Your task to perform on an android device: Add "panasonic triple a" to the cart on newegg Image 0: 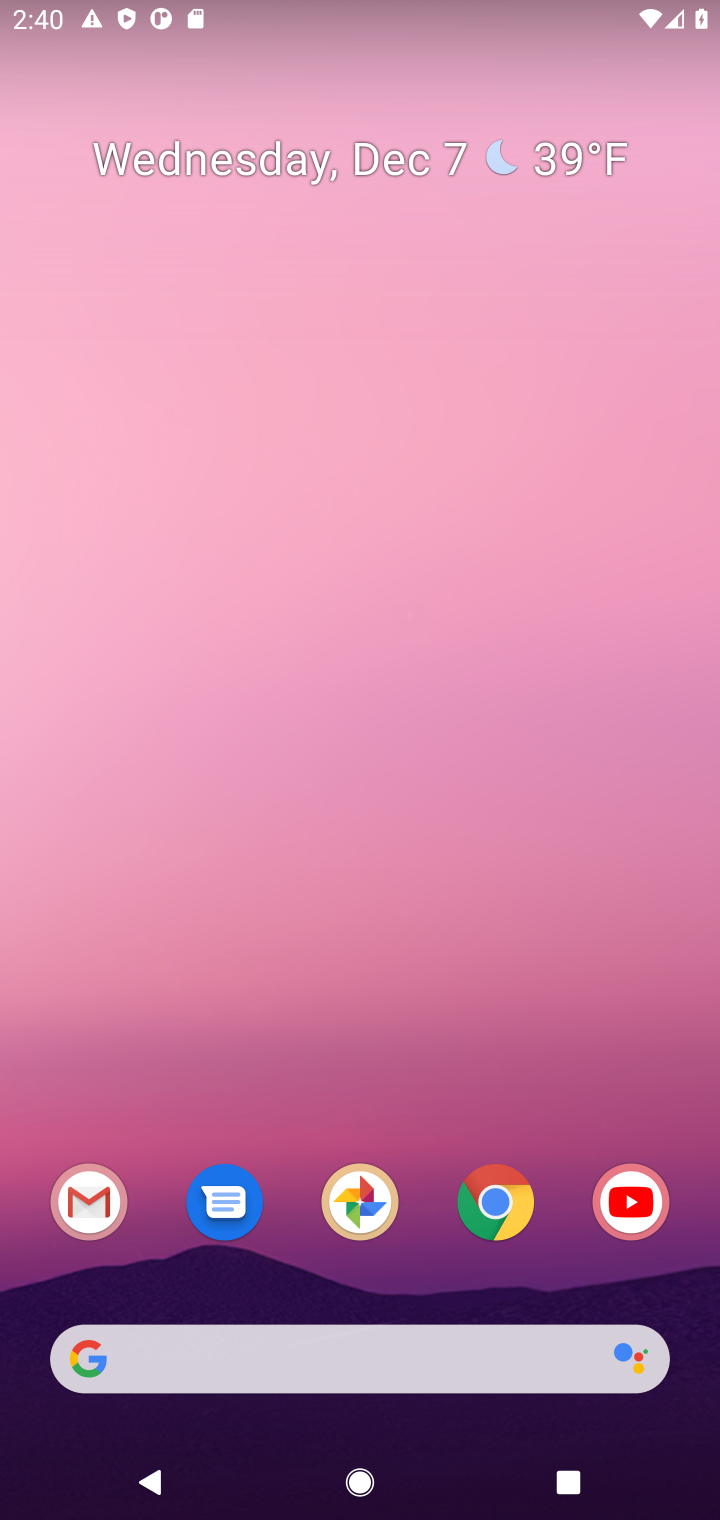
Step 0: click (488, 1205)
Your task to perform on an android device: Add "panasonic triple a" to the cart on newegg Image 1: 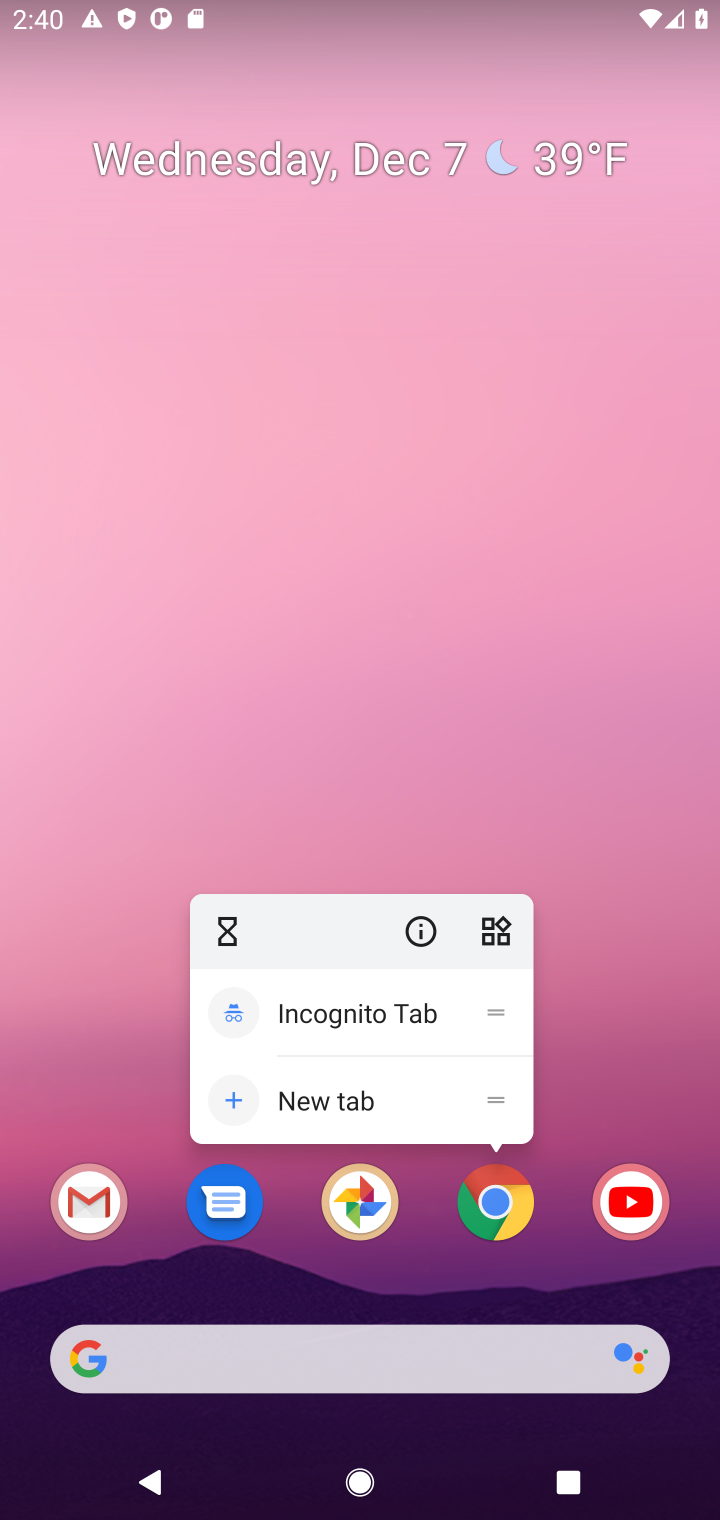
Step 1: click (472, 1202)
Your task to perform on an android device: Add "panasonic triple a" to the cart on newegg Image 2: 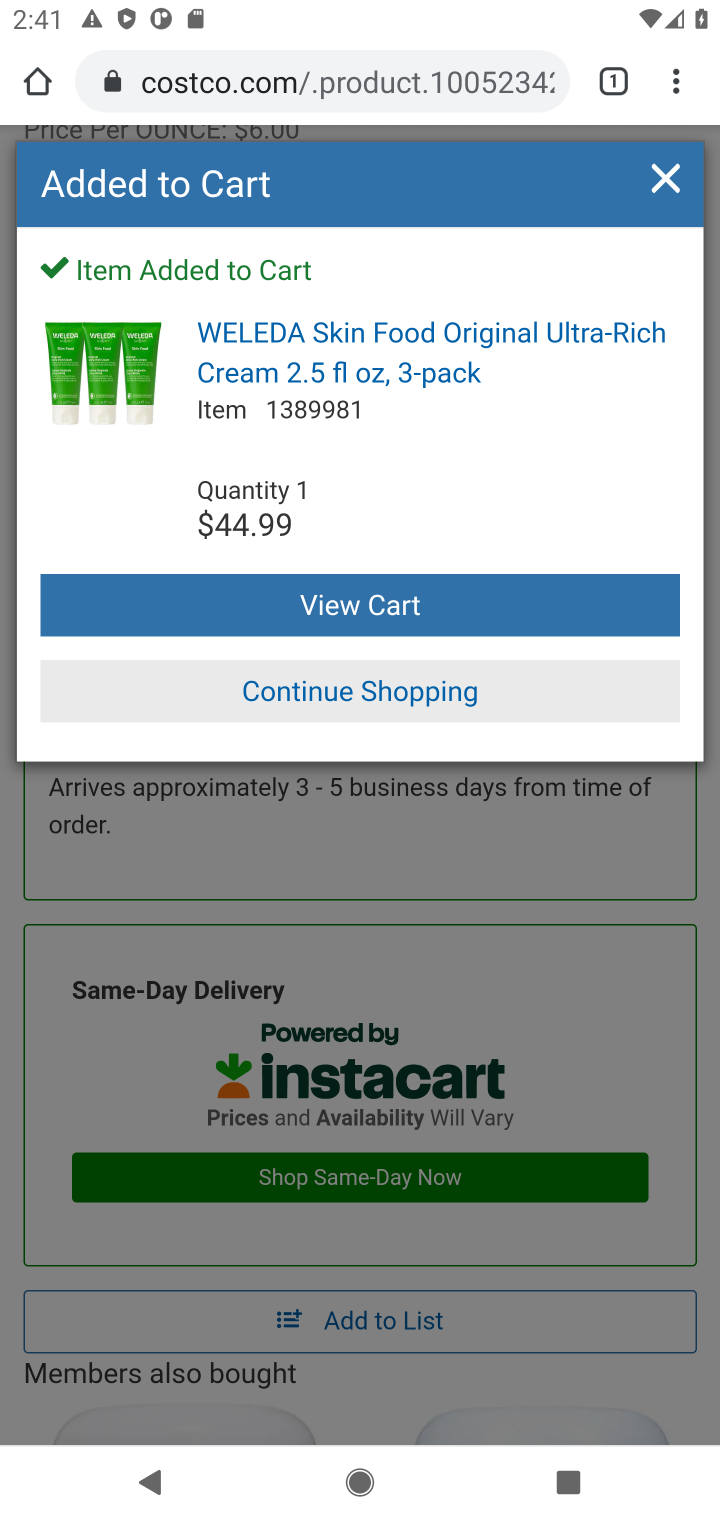
Step 2: click (305, 82)
Your task to perform on an android device: Add "panasonic triple a" to the cart on newegg Image 3: 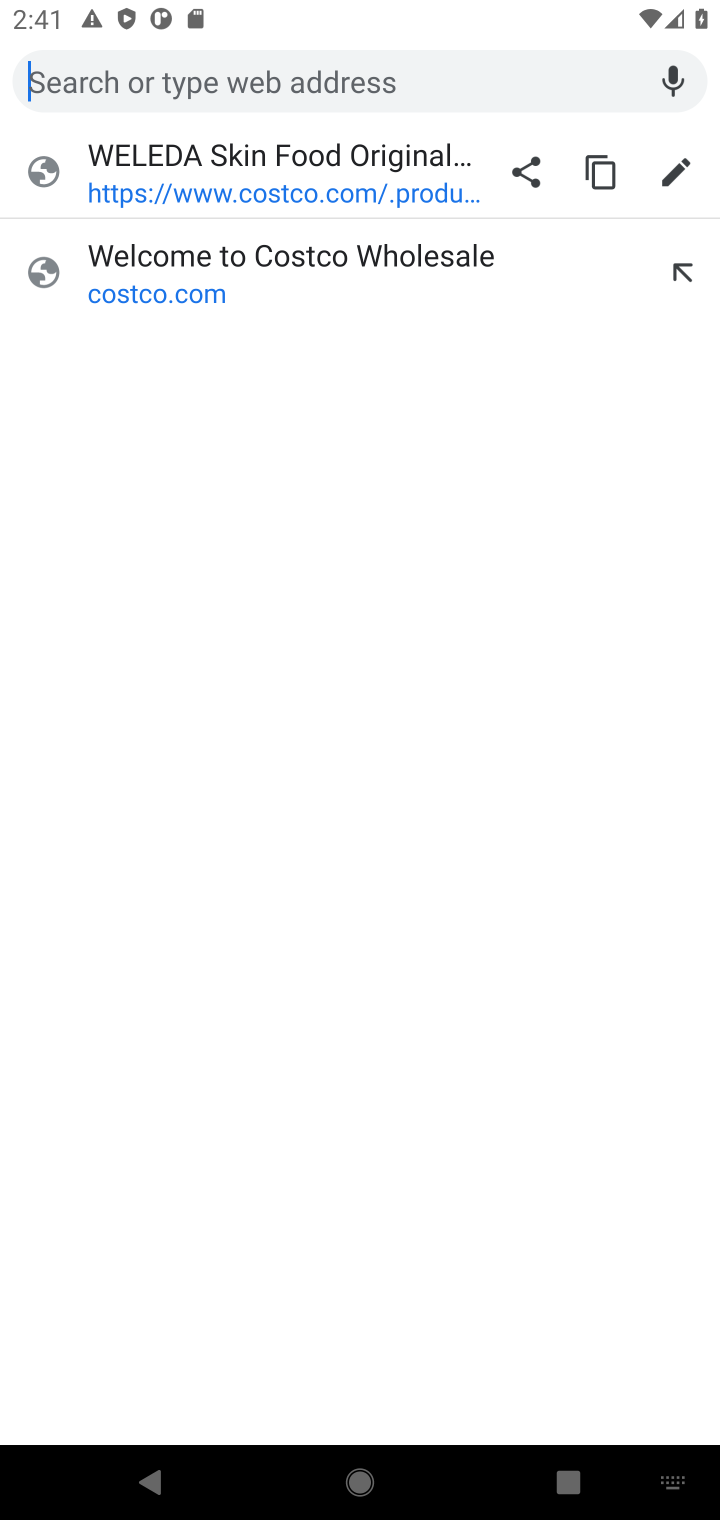
Step 3: type "newegg"
Your task to perform on an android device: Add "panasonic triple a" to the cart on newegg Image 4: 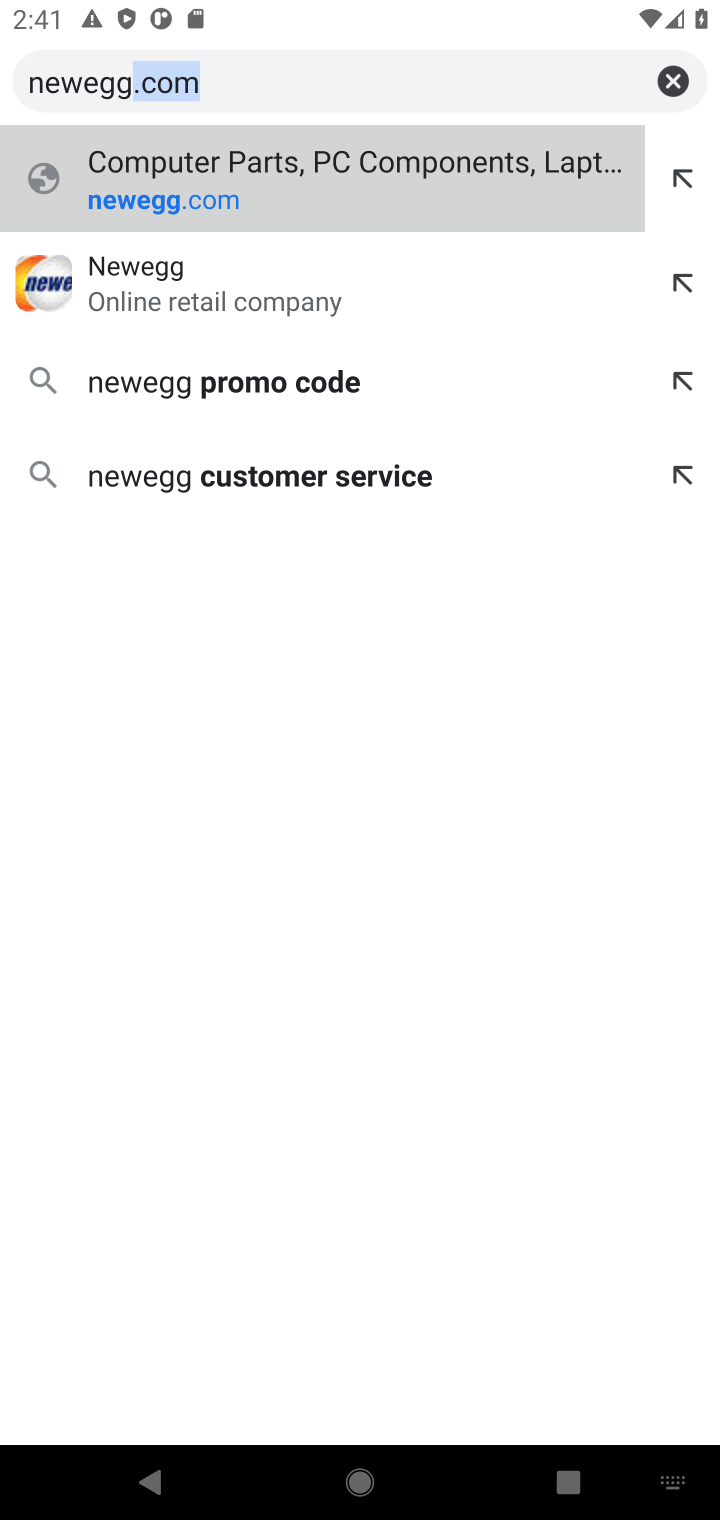
Step 4: click (294, 183)
Your task to perform on an android device: Add "panasonic triple a" to the cart on newegg Image 5: 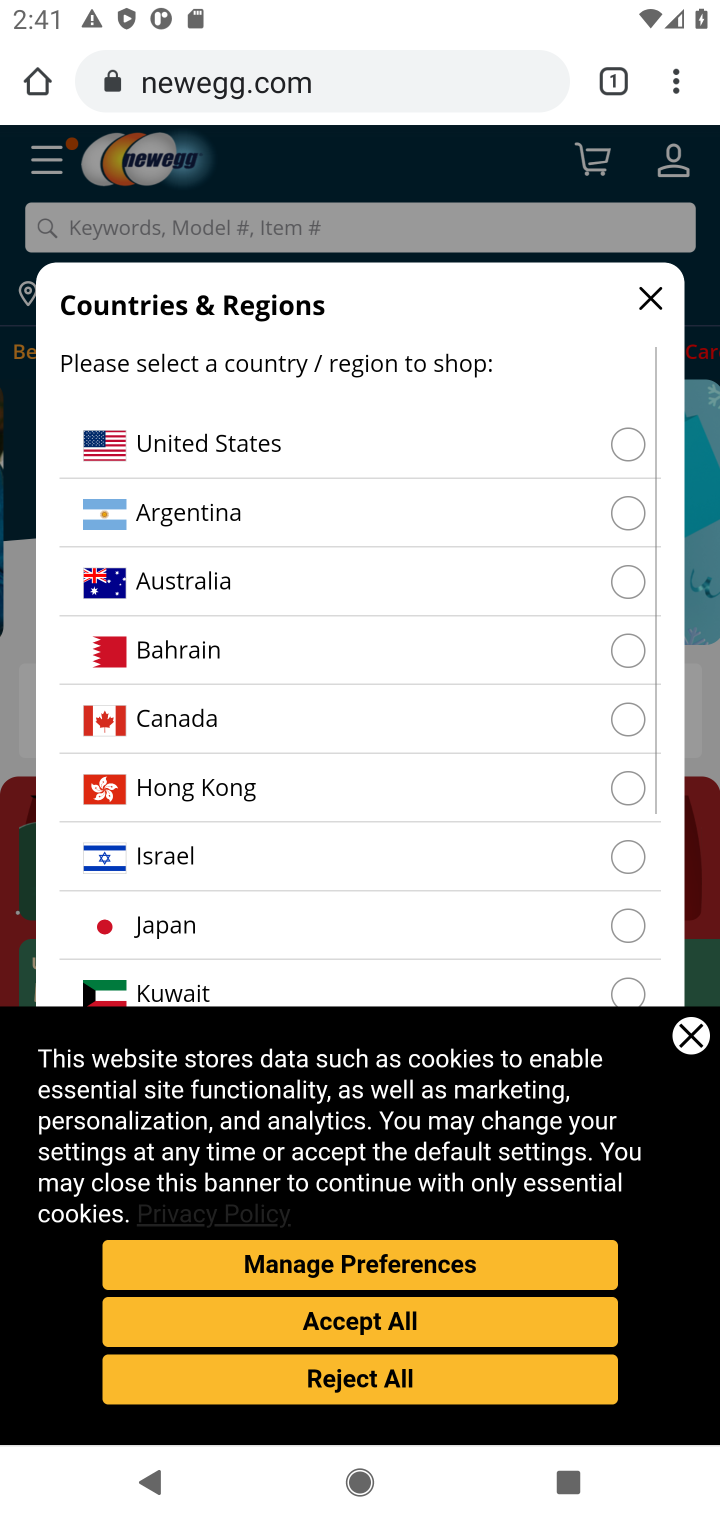
Step 5: click (695, 1034)
Your task to perform on an android device: Add "panasonic triple a" to the cart on newegg Image 6: 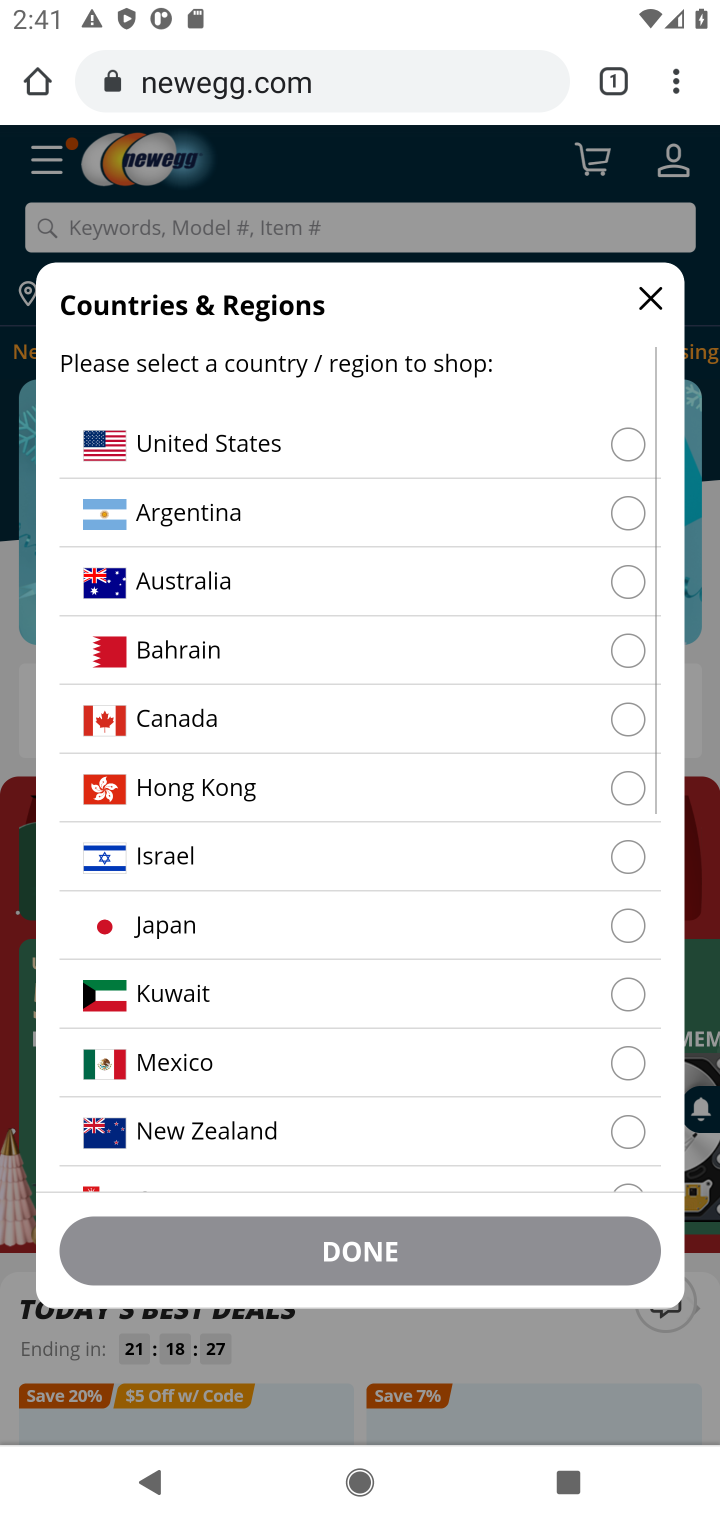
Step 6: click (644, 297)
Your task to perform on an android device: Add "panasonic triple a" to the cart on newegg Image 7: 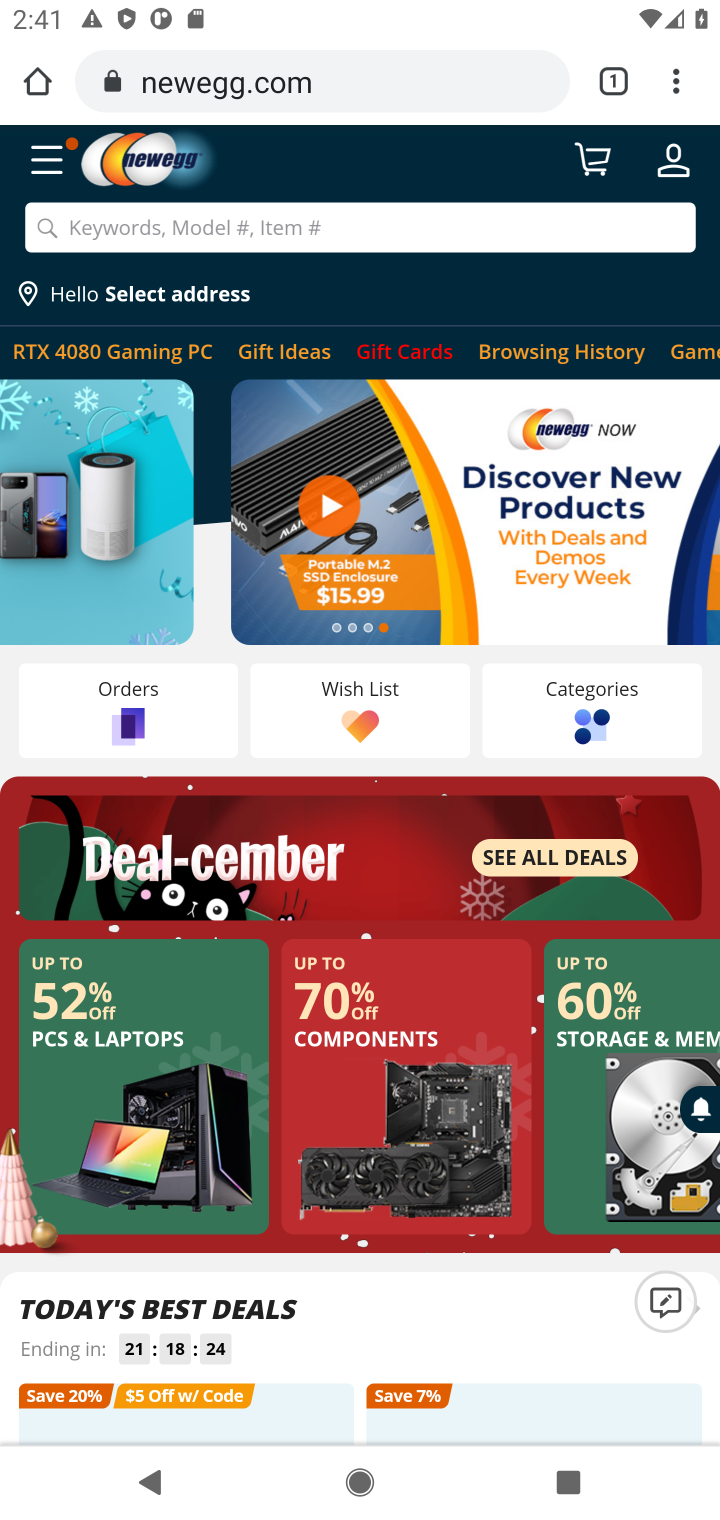
Step 7: click (318, 232)
Your task to perform on an android device: Add "panasonic triple a" to the cart on newegg Image 8: 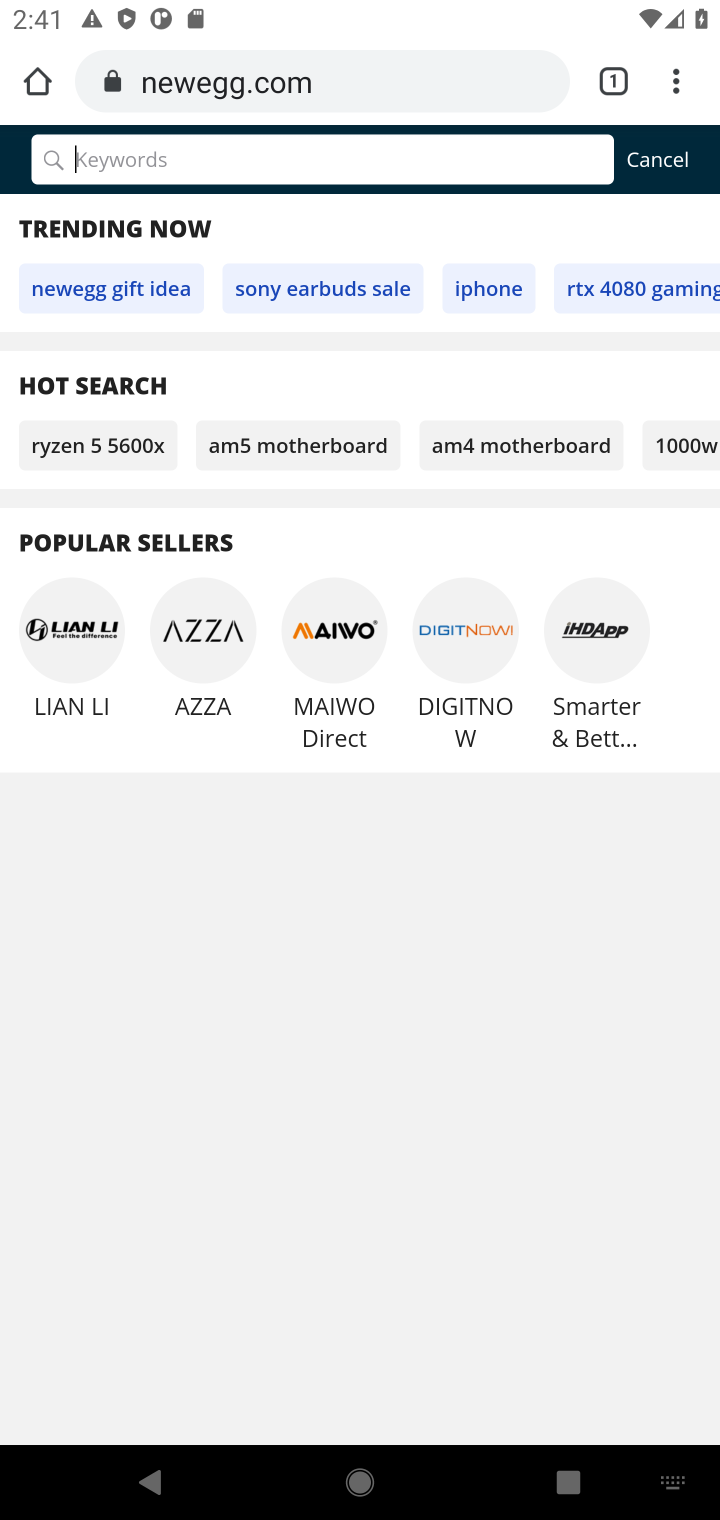
Step 8: type "panasonic triple a"
Your task to perform on an android device: Add "panasonic triple a" to the cart on newegg Image 9: 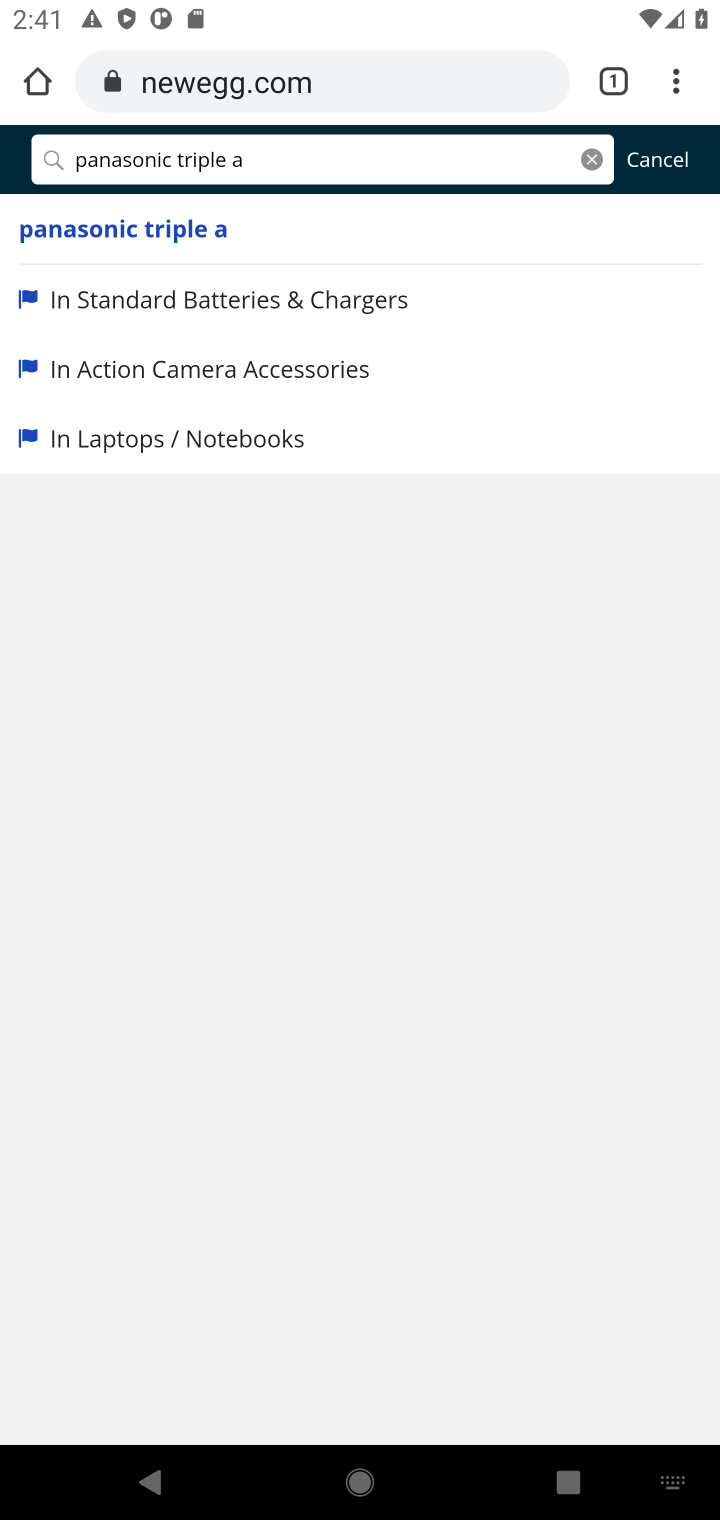
Step 9: click (155, 233)
Your task to perform on an android device: Add "panasonic triple a" to the cart on newegg Image 10: 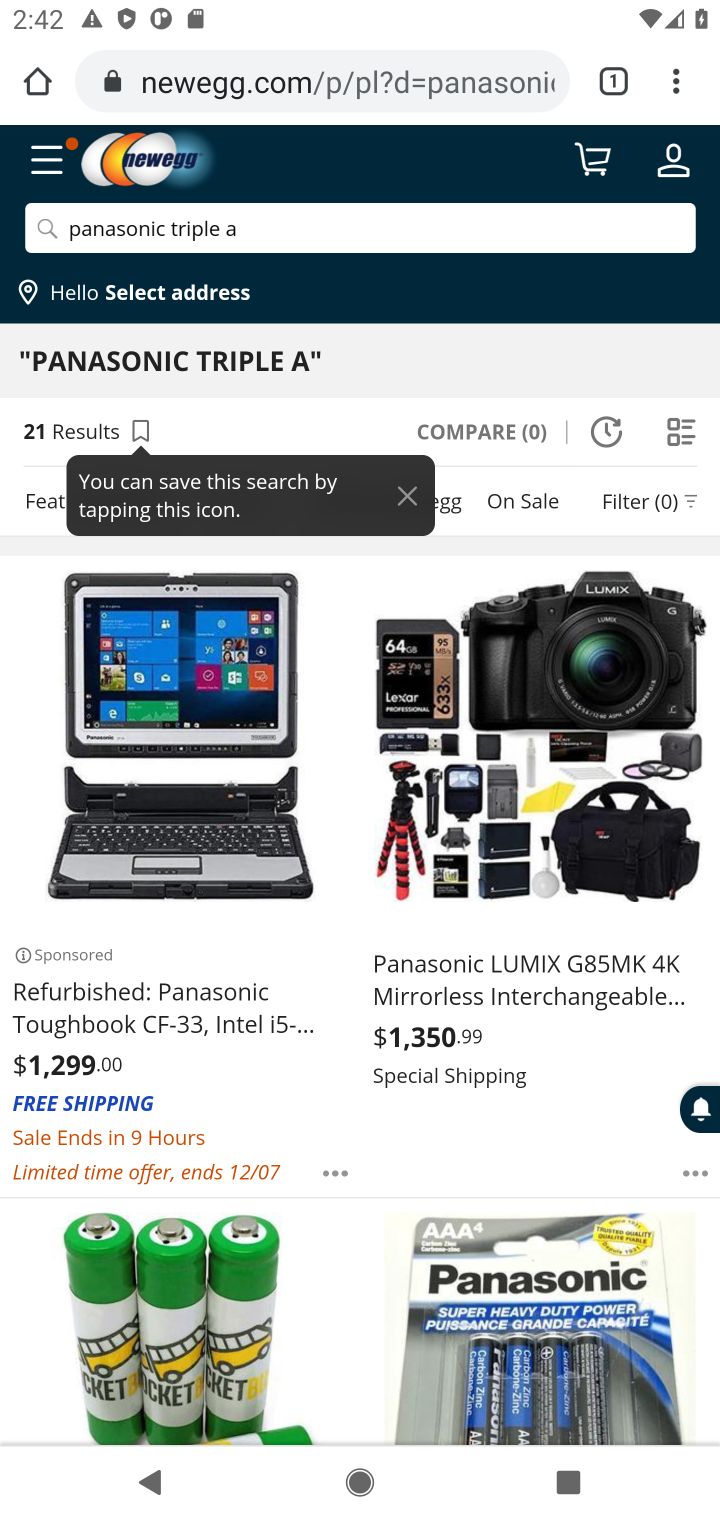
Step 10: click (209, 718)
Your task to perform on an android device: Add "panasonic triple a" to the cart on newegg Image 11: 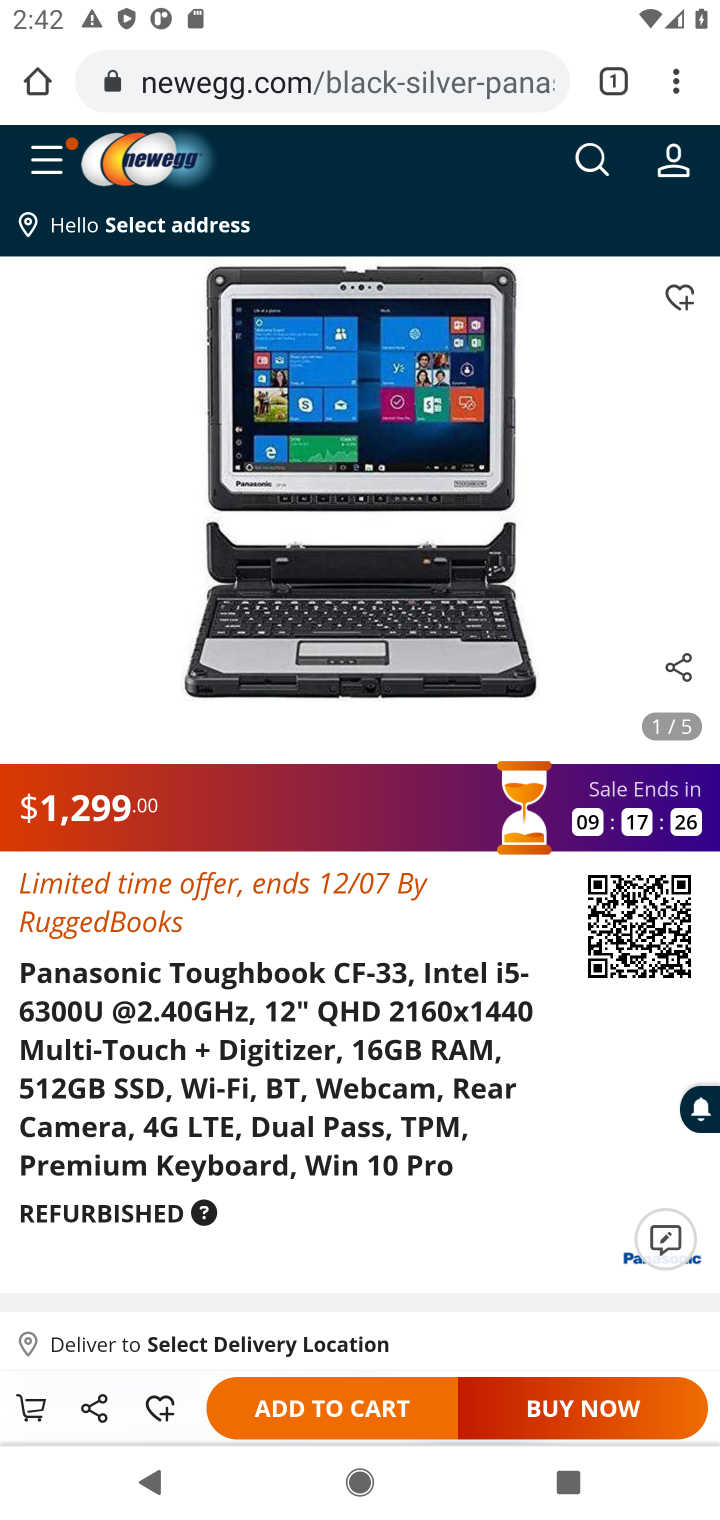
Step 11: click (311, 1403)
Your task to perform on an android device: Add "panasonic triple a" to the cart on newegg Image 12: 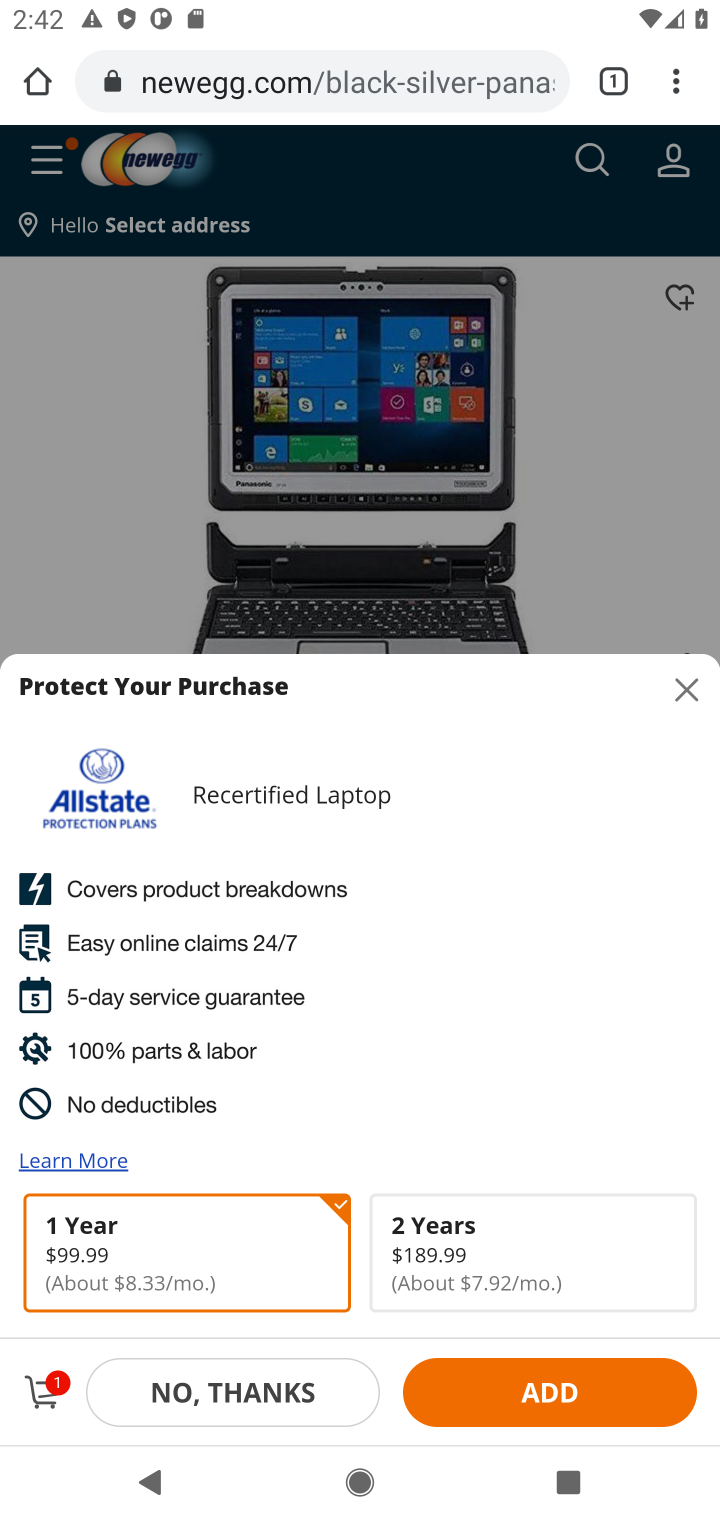
Step 12: click (222, 1388)
Your task to perform on an android device: Add "panasonic triple a" to the cart on newegg Image 13: 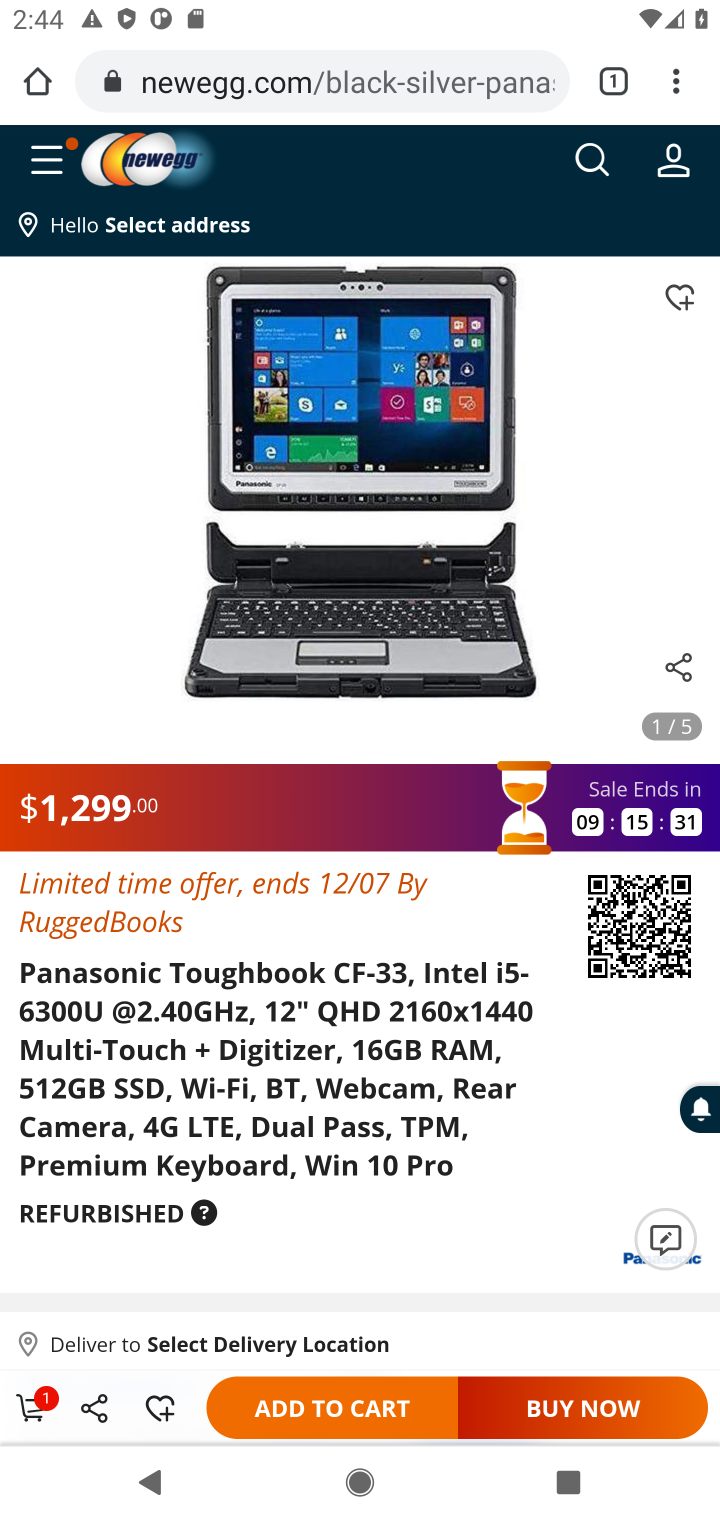
Step 13: task complete